Your task to perform on an android device: Go to network settings Image 0: 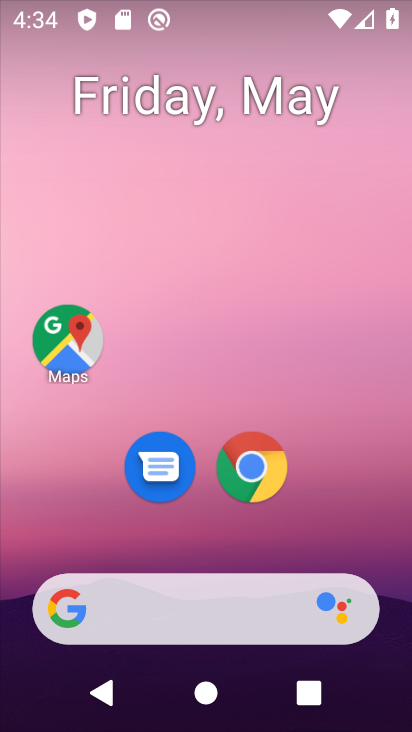
Step 0: drag from (334, 504) to (333, 10)
Your task to perform on an android device: Go to network settings Image 1: 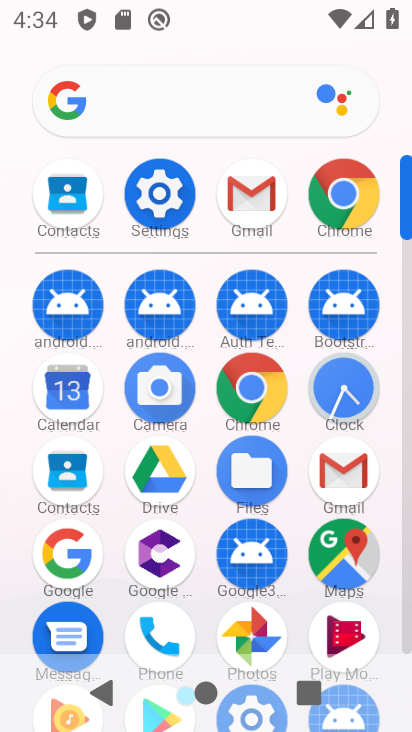
Step 1: click (141, 199)
Your task to perform on an android device: Go to network settings Image 2: 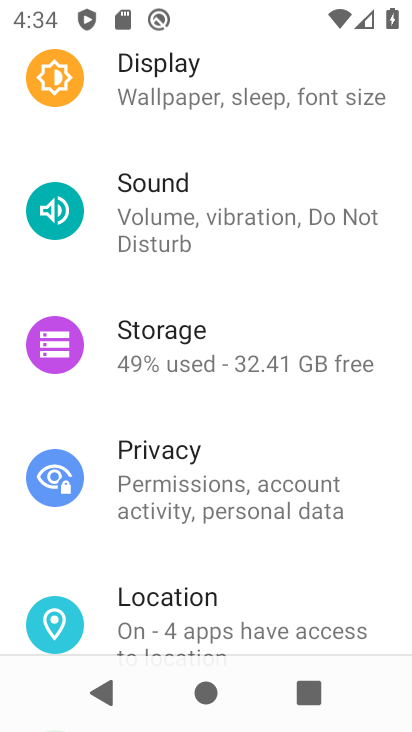
Step 2: drag from (238, 519) to (290, 622)
Your task to perform on an android device: Go to network settings Image 3: 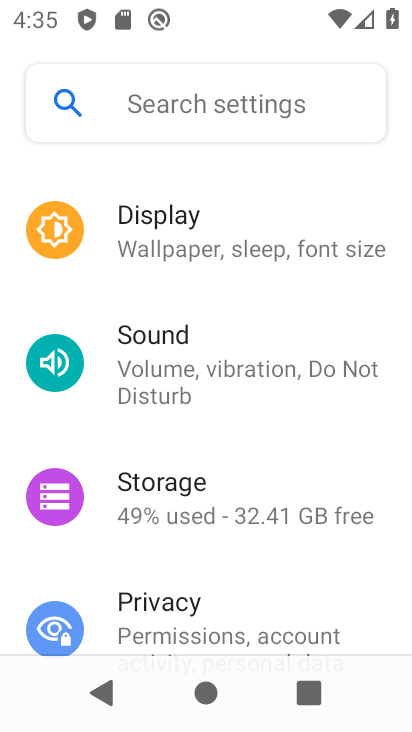
Step 3: drag from (231, 232) to (286, 633)
Your task to perform on an android device: Go to network settings Image 4: 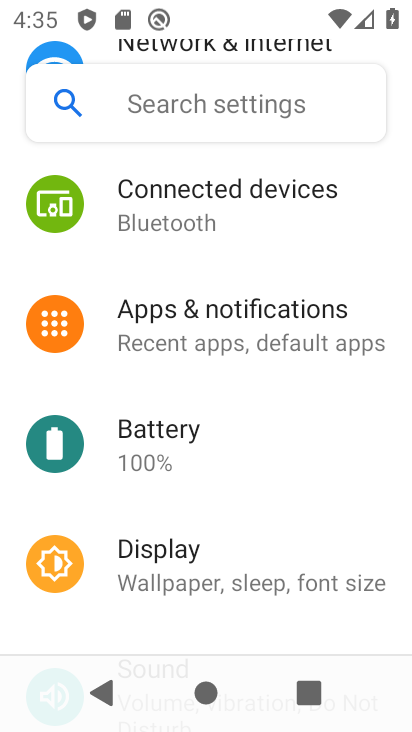
Step 4: drag from (231, 232) to (270, 697)
Your task to perform on an android device: Go to network settings Image 5: 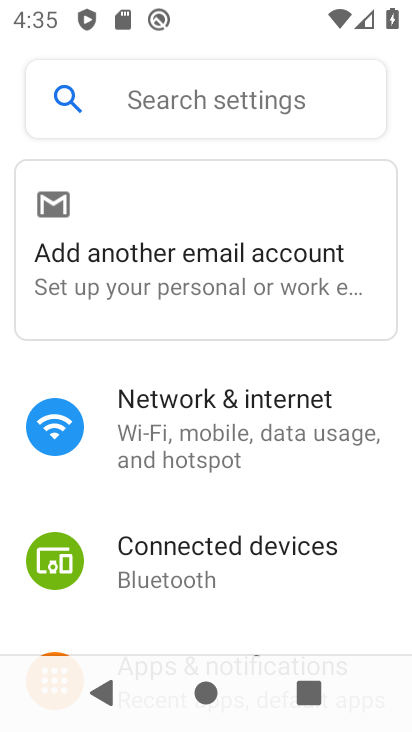
Step 5: click (234, 433)
Your task to perform on an android device: Go to network settings Image 6: 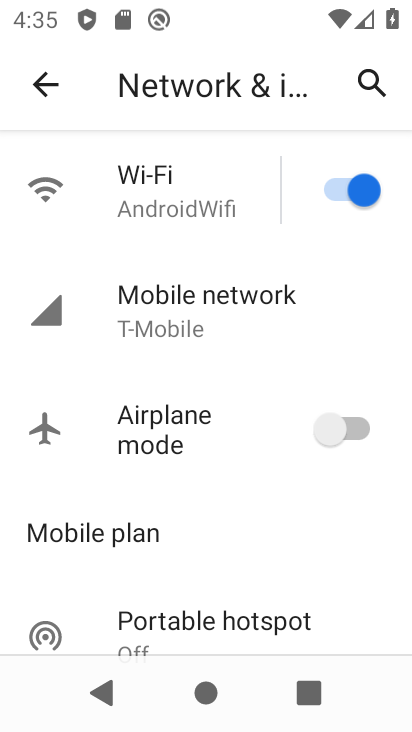
Step 6: click (213, 193)
Your task to perform on an android device: Go to network settings Image 7: 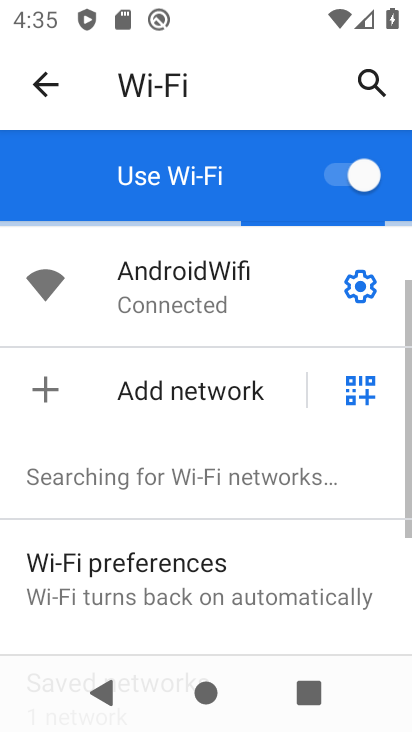
Step 7: click (358, 287)
Your task to perform on an android device: Go to network settings Image 8: 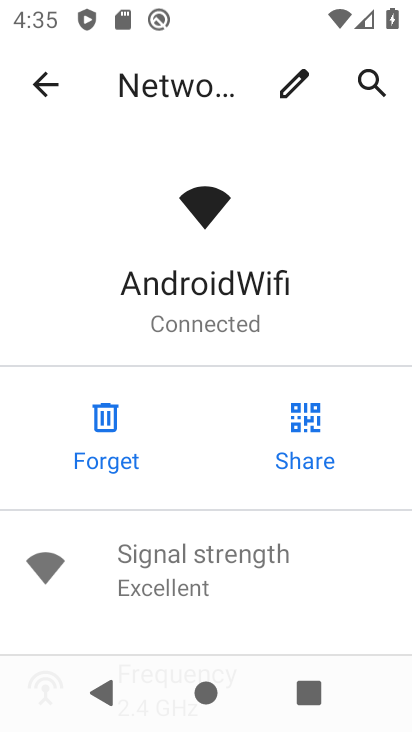
Step 8: task complete